Your task to perform on an android device: set an alarm Image 0: 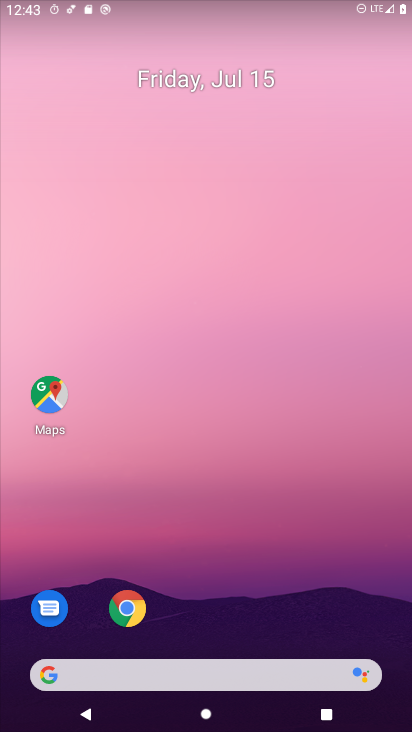
Step 0: drag from (293, 628) to (272, 122)
Your task to perform on an android device: set an alarm Image 1: 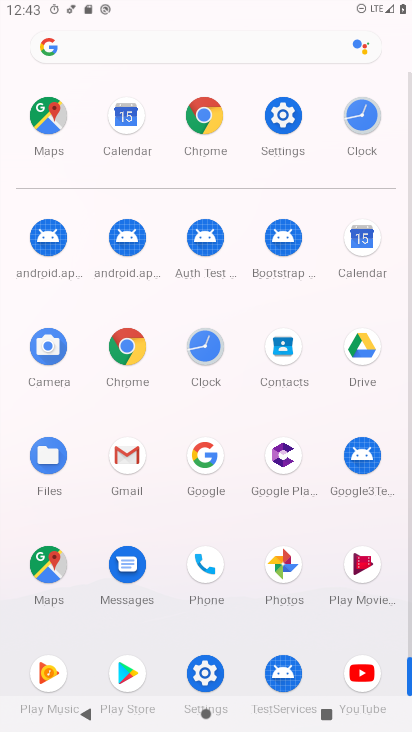
Step 1: click (212, 348)
Your task to perform on an android device: set an alarm Image 2: 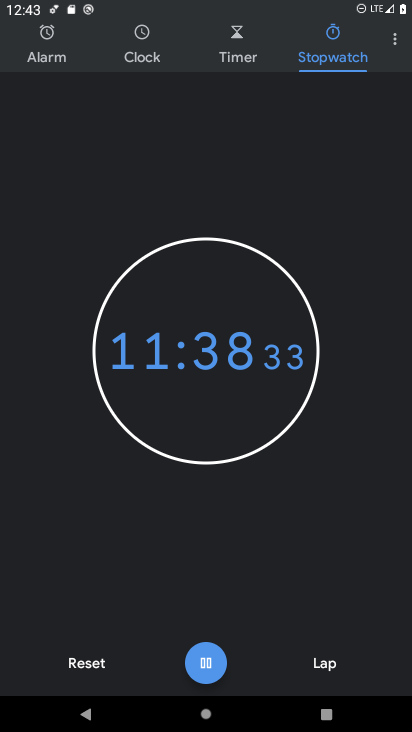
Step 2: click (54, 54)
Your task to perform on an android device: set an alarm Image 3: 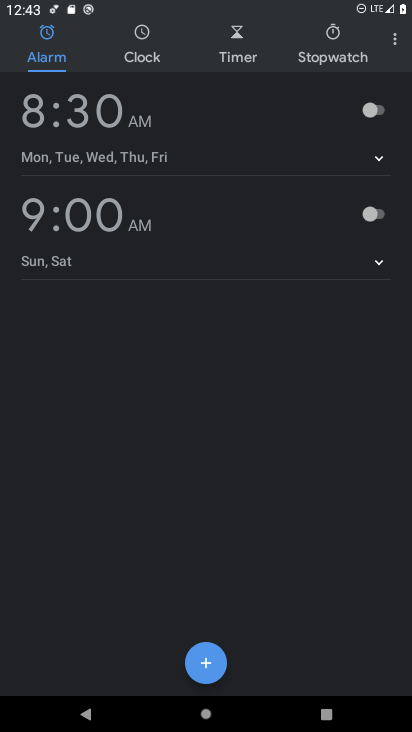
Step 3: click (387, 107)
Your task to perform on an android device: set an alarm Image 4: 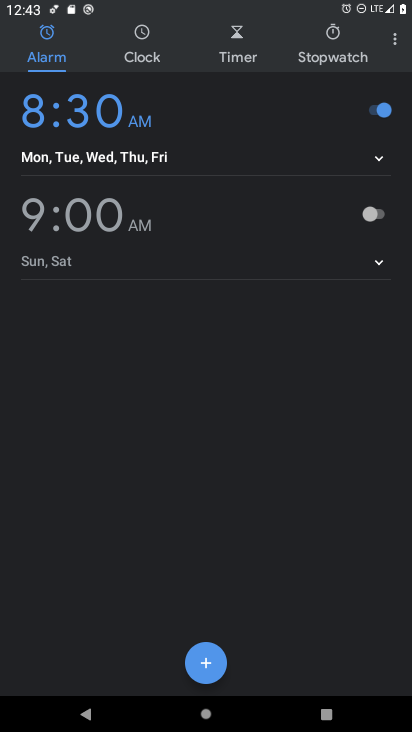
Step 4: task complete